Your task to perform on an android device: What is the news today? Image 0: 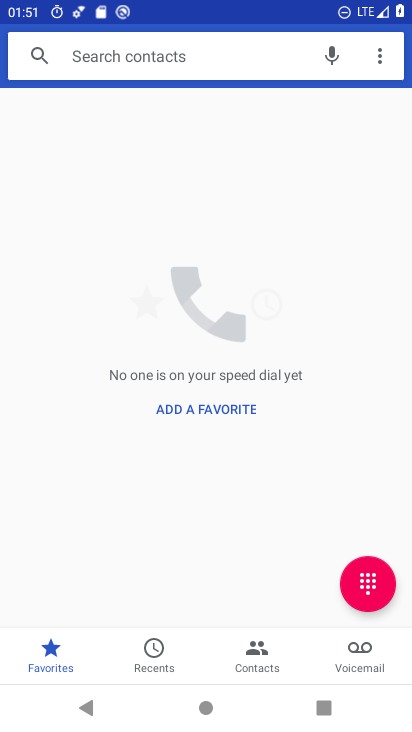
Step 0: press home button
Your task to perform on an android device: What is the news today? Image 1: 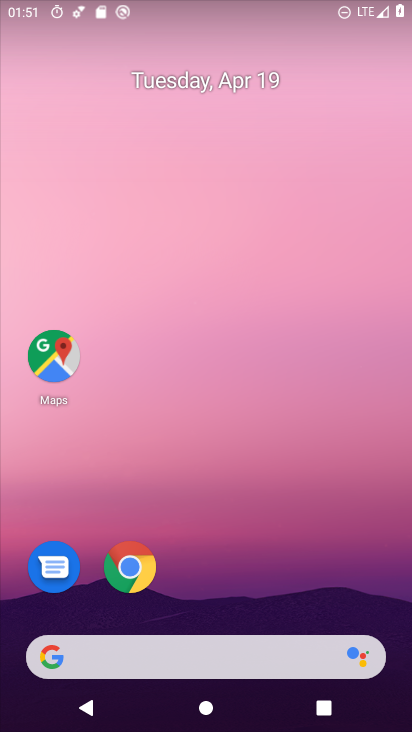
Step 1: drag from (229, 573) to (240, 158)
Your task to perform on an android device: What is the news today? Image 2: 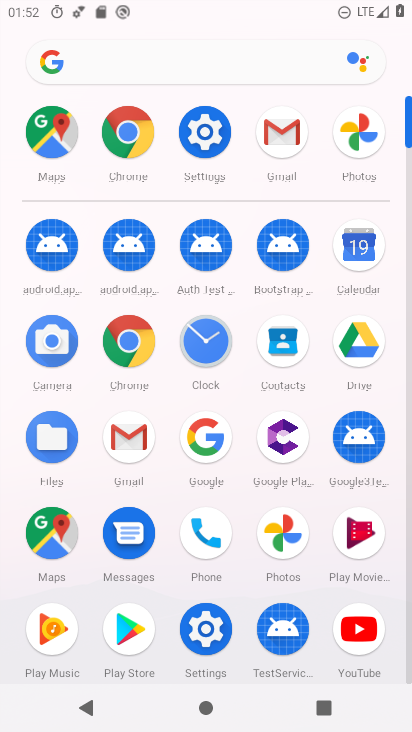
Step 2: click (121, 338)
Your task to perform on an android device: What is the news today? Image 3: 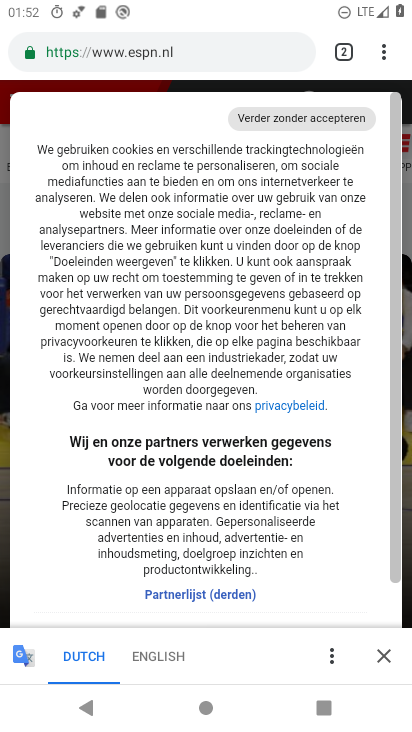
Step 3: click (203, 46)
Your task to perform on an android device: What is the news today? Image 4: 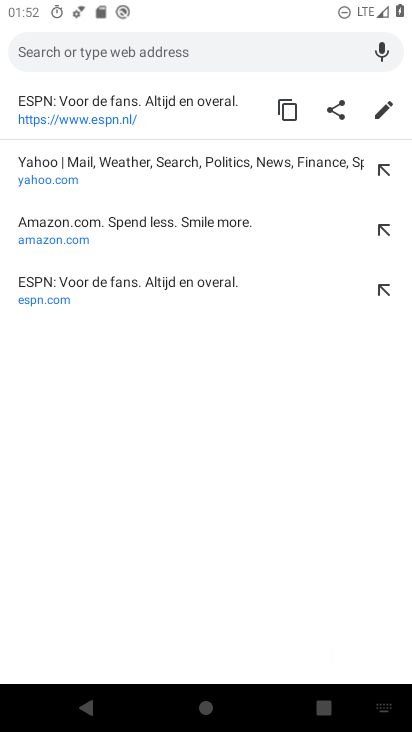
Step 4: type "news"
Your task to perform on an android device: What is the news today? Image 5: 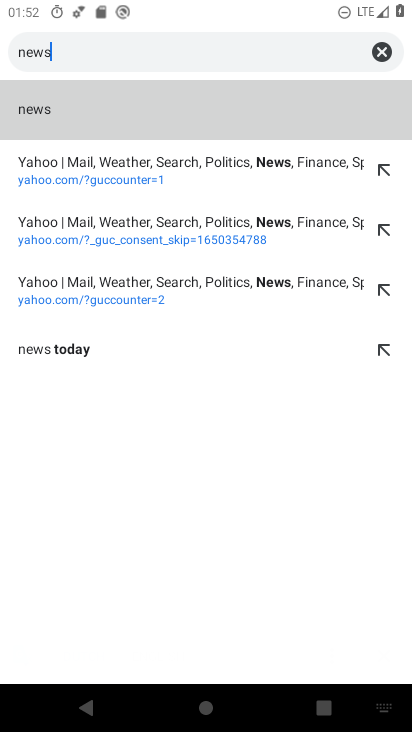
Step 5: click (30, 111)
Your task to perform on an android device: What is the news today? Image 6: 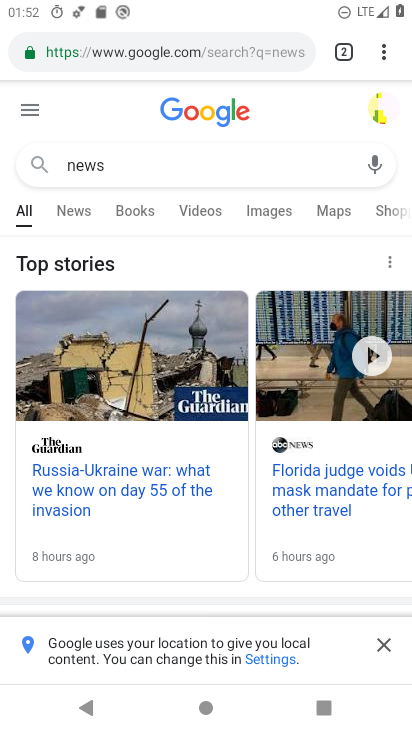
Step 6: task complete